Your task to perform on an android device: Open Youtube and go to the subscriptions tab Image 0: 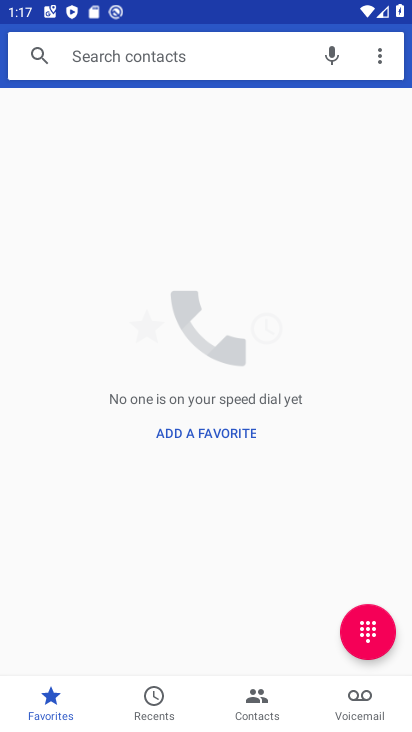
Step 0: press back button
Your task to perform on an android device: Open Youtube and go to the subscriptions tab Image 1: 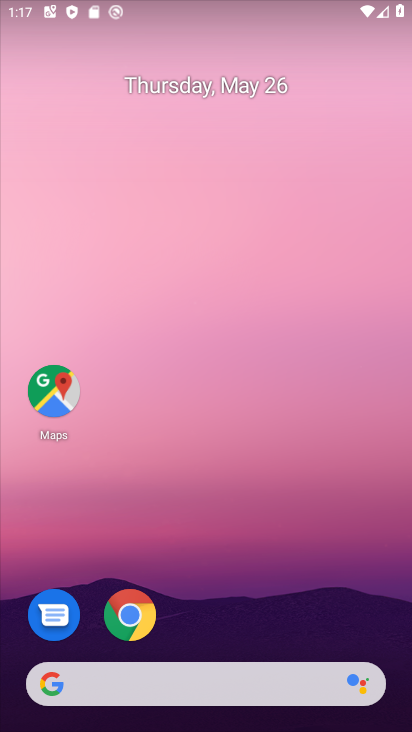
Step 1: drag from (269, 616) to (286, 31)
Your task to perform on an android device: Open Youtube and go to the subscriptions tab Image 2: 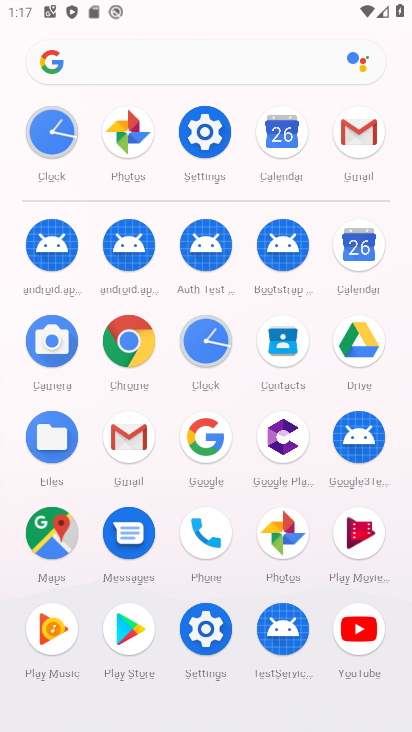
Step 2: click (354, 640)
Your task to perform on an android device: Open Youtube and go to the subscriptions tab Image 3: 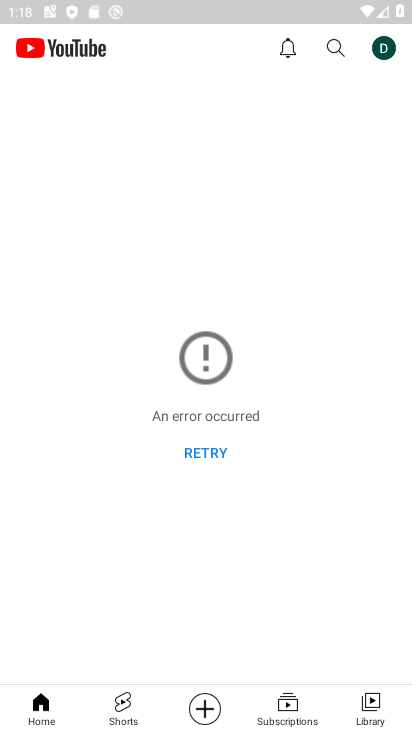
Step 3: drag from (224, 697) to (258, 524)
Your task to perform on an android device: Open Youtube and go to the subscriptions tab Image 4: 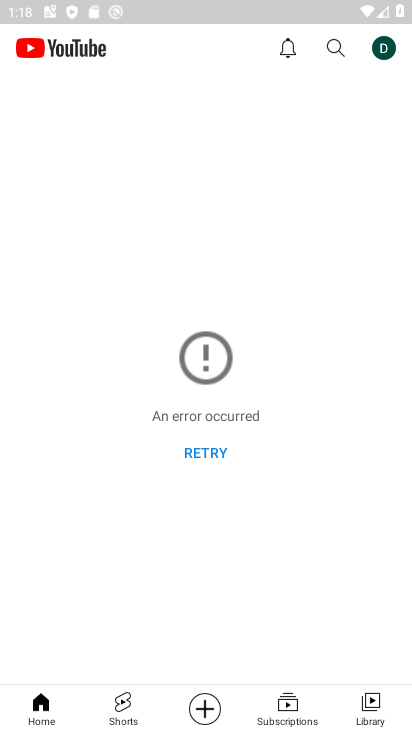
Step 4: click (296, 695)
Your task to perform on an android device: Open Youtube and go to the subscriptions tab Image 5: 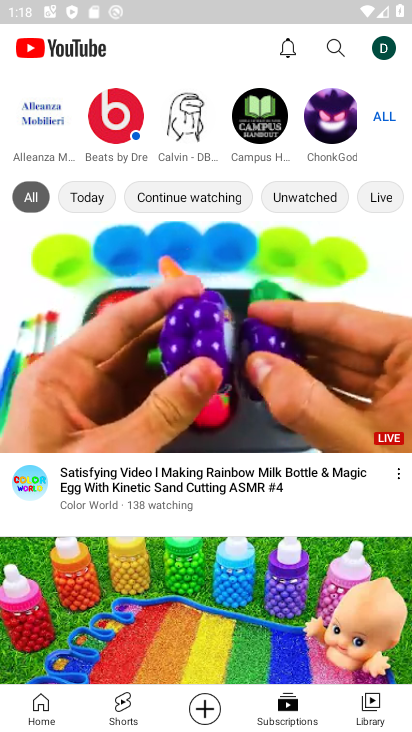
Step 5: task complete